Your task to perform on an android device: What's on my calendar tomorrow? Image 0: 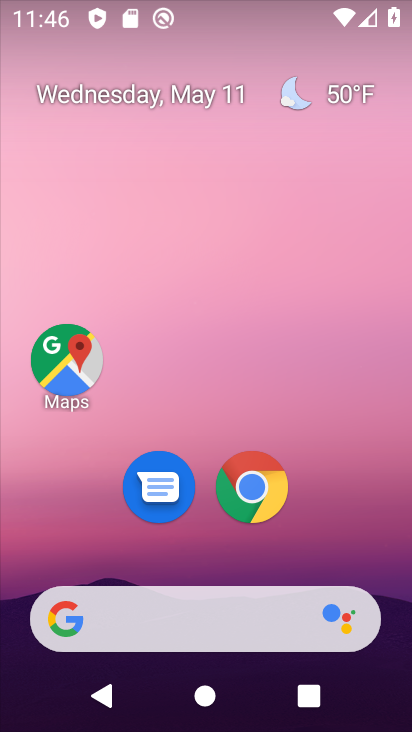
Step 0: drag from (411, 141) to (337, 295)
Your task to perform on an android device: What's on my calendar tomorrow? Image 1: 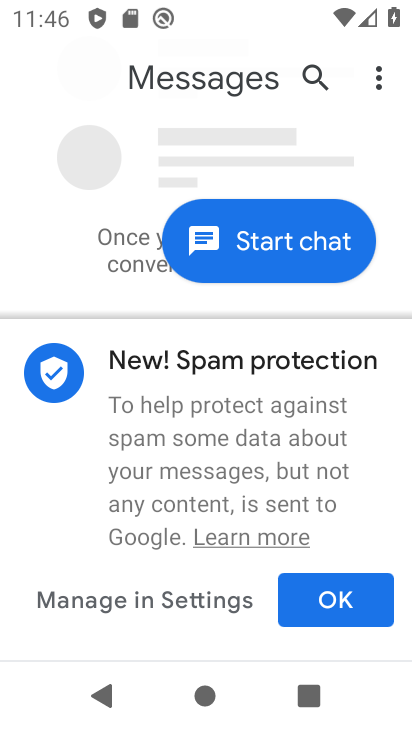
Step 1: press home button
Your task to perform on an android device: What's on my calendar tomorrow? Image 2: 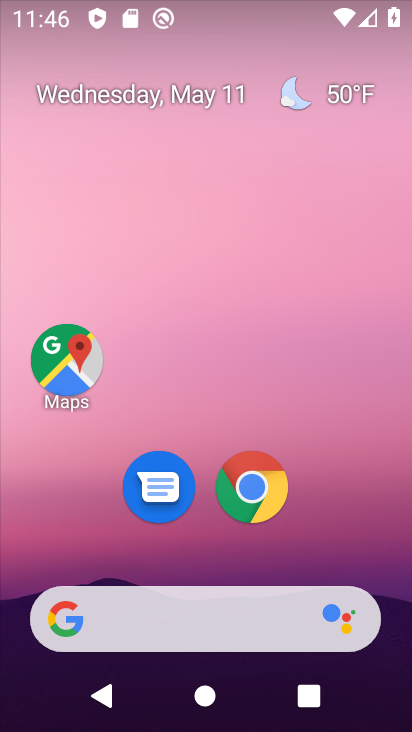
Step 2: drag from (232, 588) to (360, 87)
Your task to perform on an android device: What's on my calendar tomorrow? Image 3: 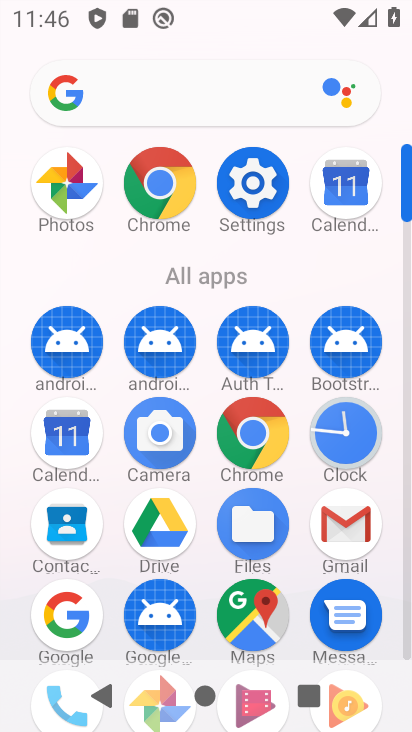
Step 3: click (71, 431)
Your task to perform on an android device: What's on my calendar tomorrow? Image 4: 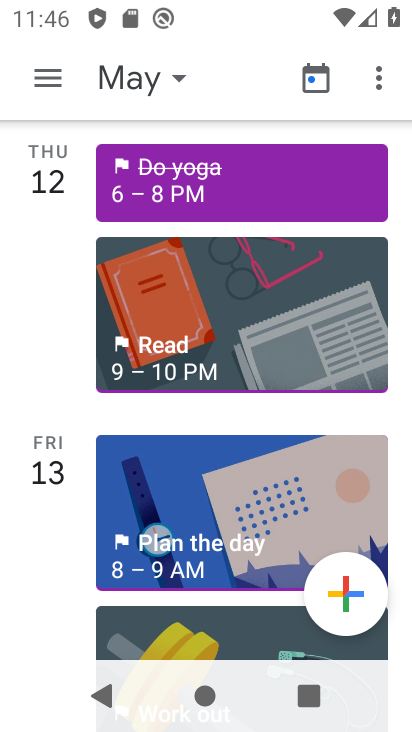
Step 4: task complete